Your task to perform on an android device: empty trash in the gmail app Image 0: 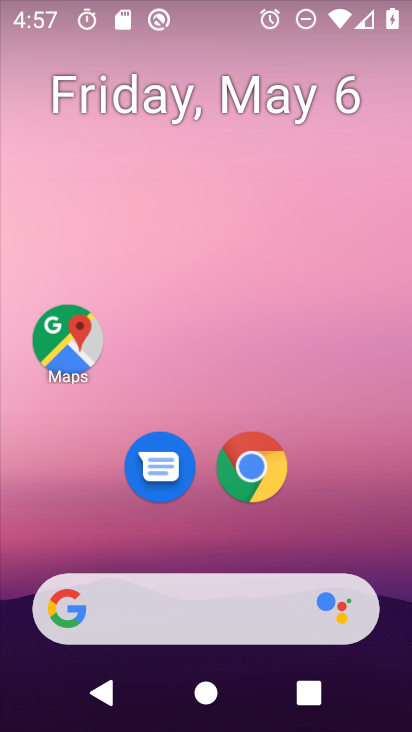
Step 0: drag from (362, 514) to (253, 131)
Your task to perform on an android device: empty trash in the gmail app Image 1: 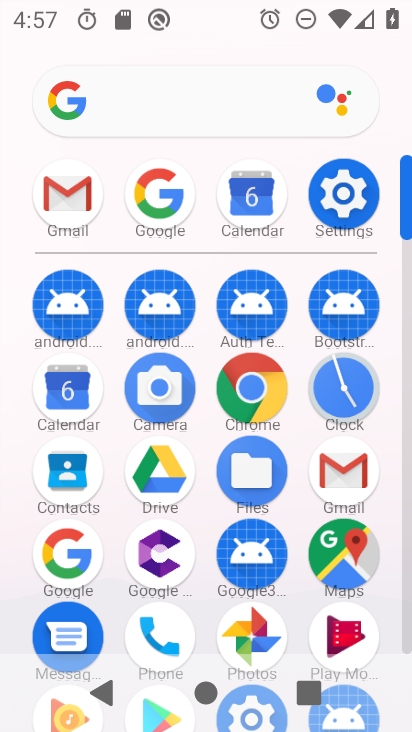
Step 1: click (61, 181)
Your task to perform on an android device: empty trash in the gmail app Image 2: 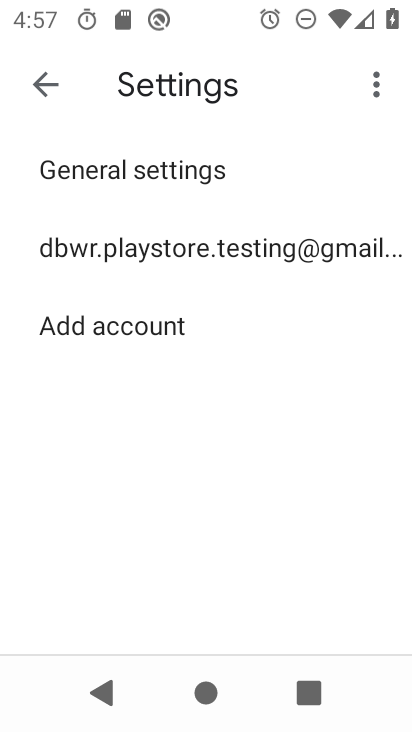
Step 2: click (55, 95)
Your task to perform on an android device: empty trash in the gmail app Image 3: 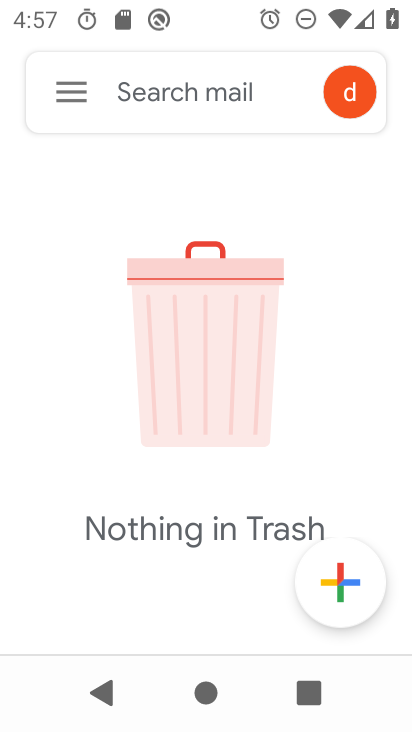
Step 3: click (64, 89)
Your task to perform on an android device: empty trash in the gmail app Image 4: 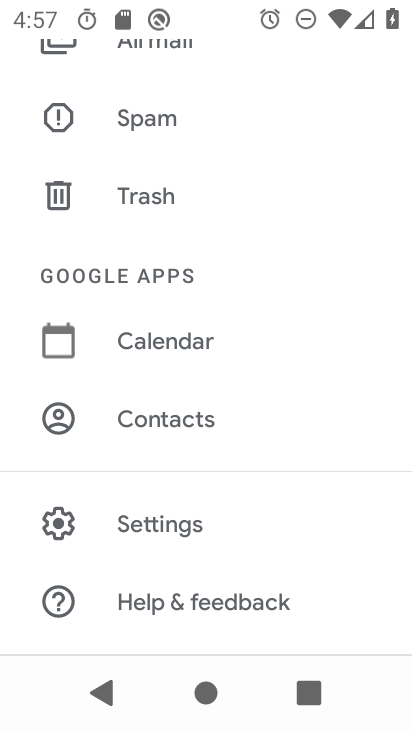
Step 4: click (158, 199)
Your task to perform on an android device: empty trash in the gmail app Image 5: 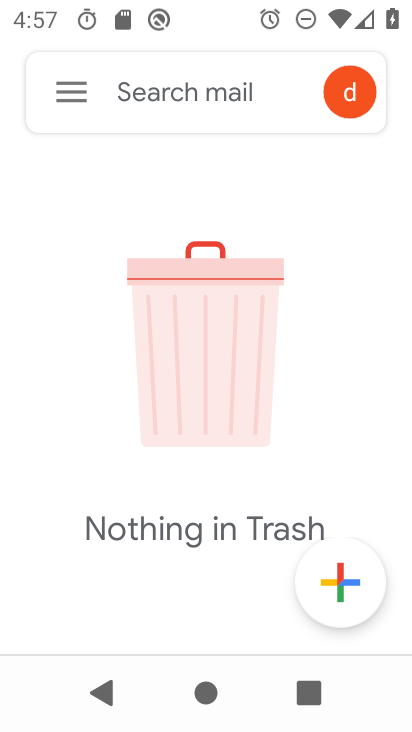
Step 5: task complete